Your task to perform on an android device: toggle pop-ups in chrome Image 0: 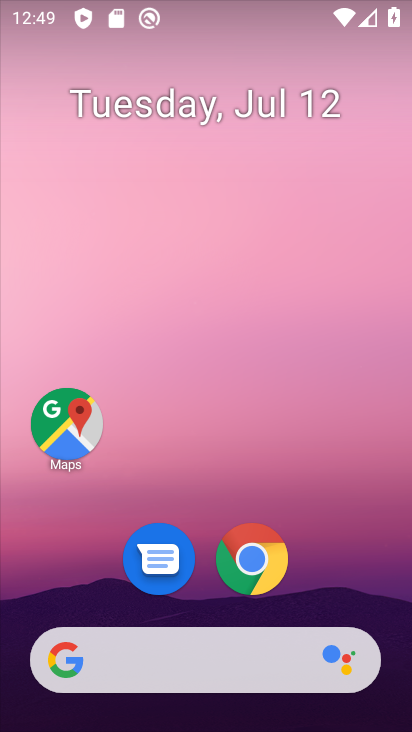
Step 0: drag from (356, 572) to (358, 112)
Your task to perform on an android device: toggle pop-ups in chrome Image 1: 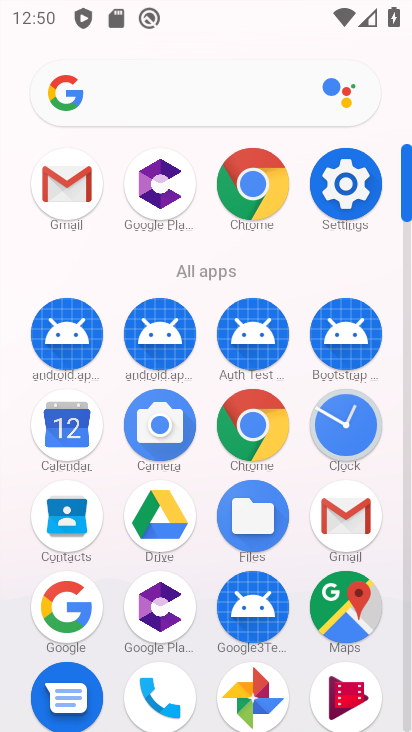
Step 1: click (250, 432)
Your task to perform on an android device: toggle pop-ups in chrome Image 2: 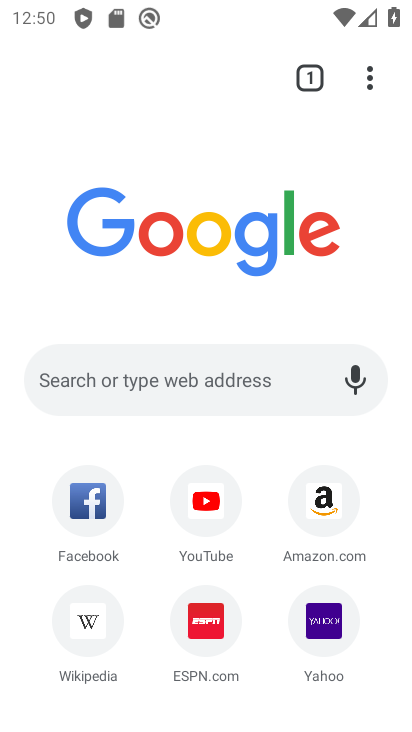
Step 2: click (372, 81)
Your task to perform on an android device: toggle pop-ups in chrome Image 3: 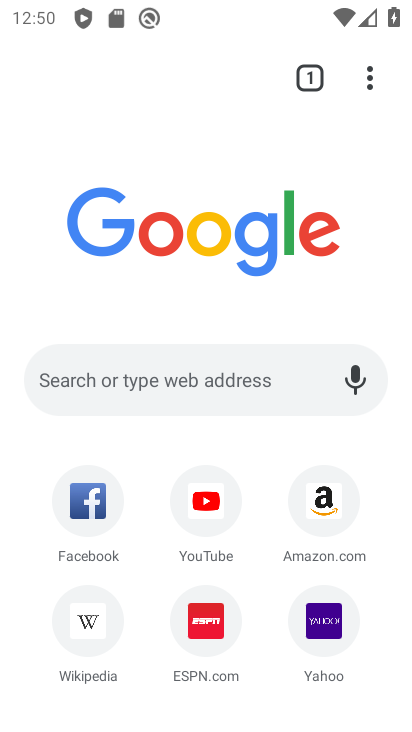
Step 3: click (368, 93)
Your task to perform on an android device: toggle pop-ups in chrome Image 4: 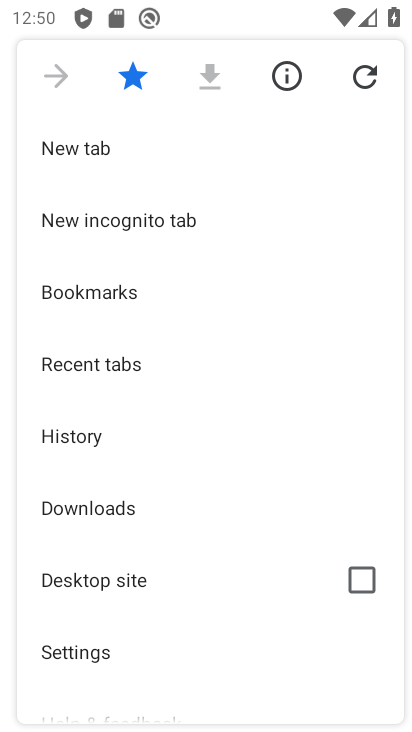
Step 4: drag from (257, 497) to (259, 339)
Your task to perform on an android device: toggle pop-ups in chrome Image 5: 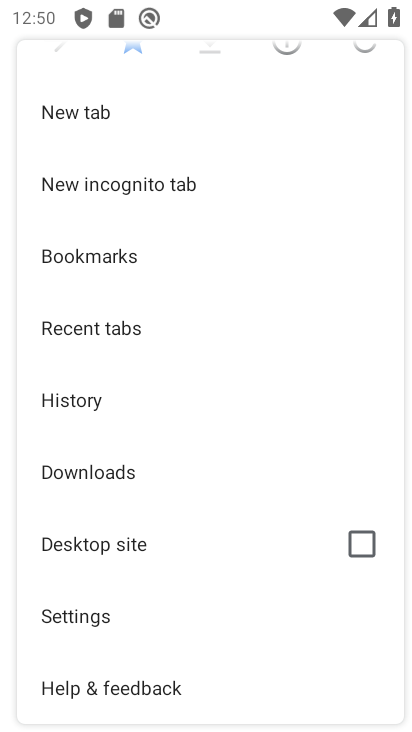
Step 5: drag from (236, 517) to (243, 357)
Your task to perform on an android device: toggle pop-ups in chrome Image 6: 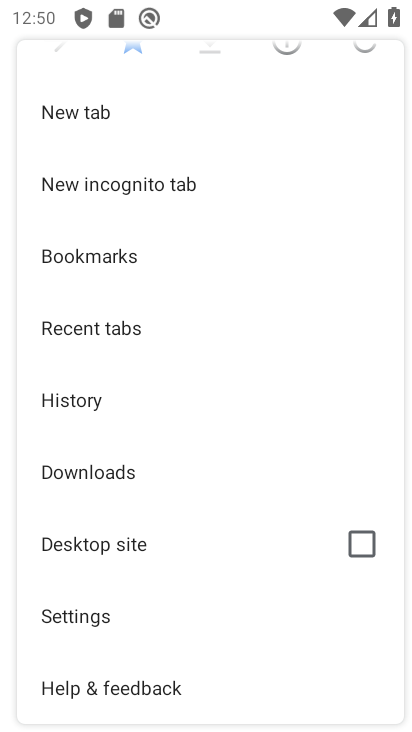
Step 6: click (93, 624)
Your task to perform on an android device: toggle pop-ups in chrome Image 7: 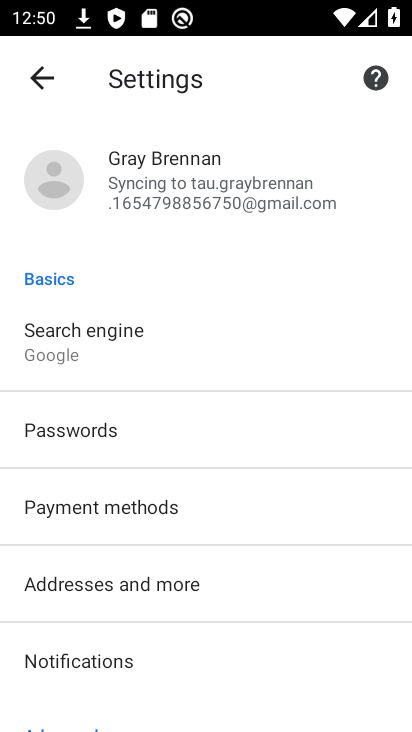
Step 7: drag from (306, 614) to (316, 430)
Your task to perform on an android device: toggle pop-ups in chrome Image 8: 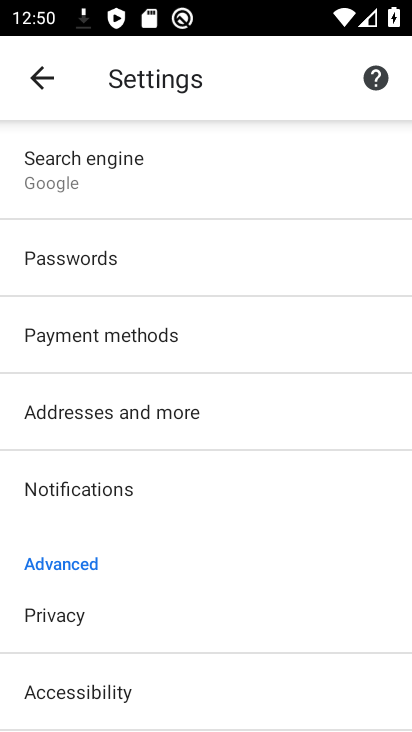
Step 8: drag from (324, 609) to (309, 311)
Your task to perform on an android device: toggle pop-ups in chrome Image 9: 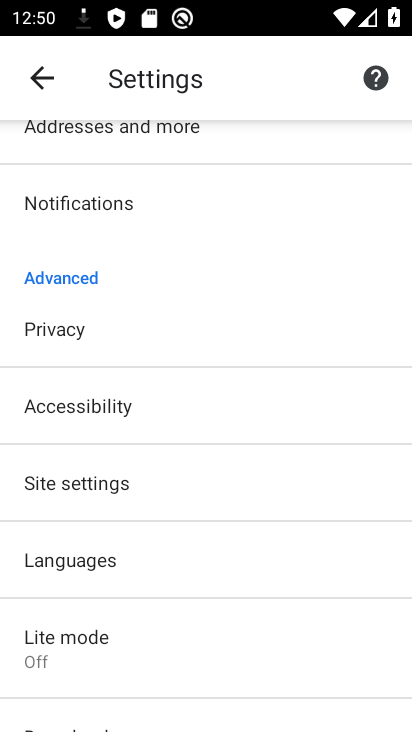
Step 9: drag from (280, 656) to (281, 471)
Your task to perform on an android device: toggle pop-ups in chrome Image 10: 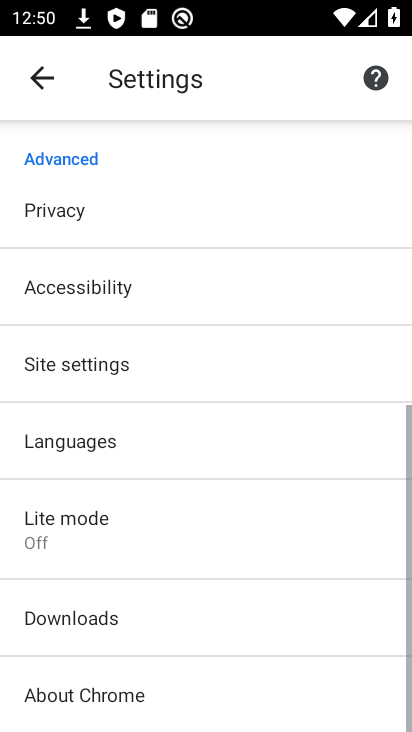
Step 10: drag from (273, 678) to (274, 473)
Your task to perform on an android device: toggle pop-ups in chrome Image 11: 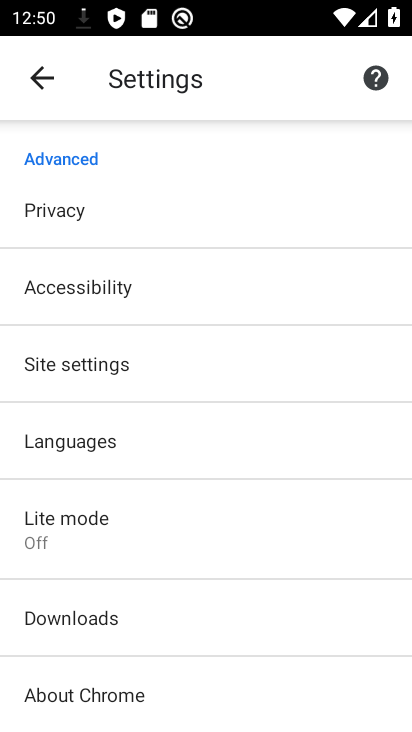
Step 11: drag from (268, 293) to (274, 392)
Your task to perform on an android device: toggle pop-ups in chrome Image 12: 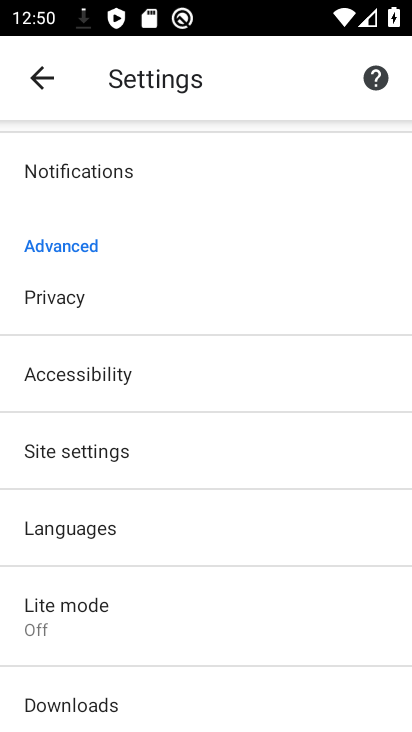
Step 12: click (156, 462)
Your task to perform on an android device: toggle pop-ups in chrome Image 13: 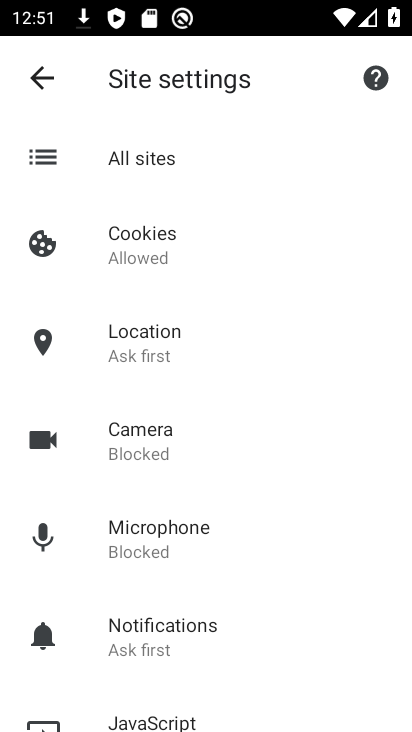
Step 13: drag from (308, 587) to (296, 343)
Your task to perform on an android device: toggle pop-ups in chrome Image 14: 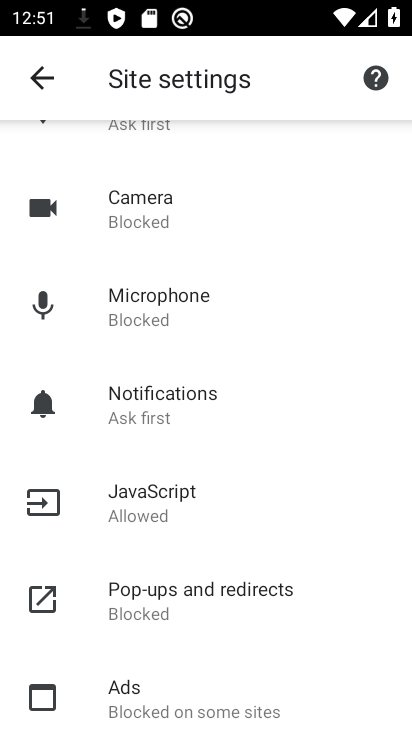
Step 14: drag from (331, 631) to (317, 383)
Your task to perform on an android device: toggle pop-ups in chrome Image 15: 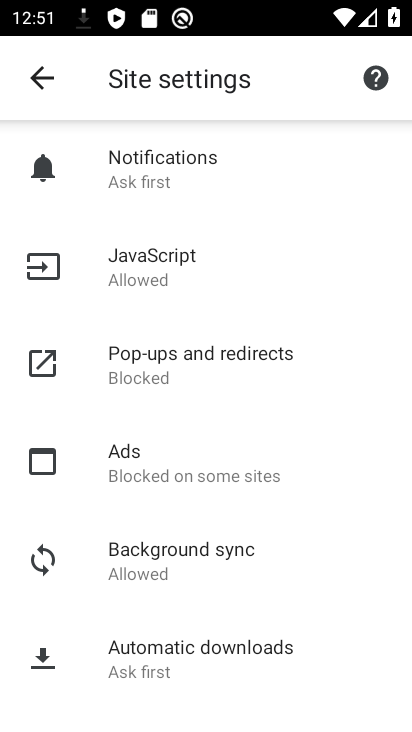
Step 15: drag from (331, 577) to (326, 280)
Your task to perform on an android device: toggle pop-ups in chrome Image 16: 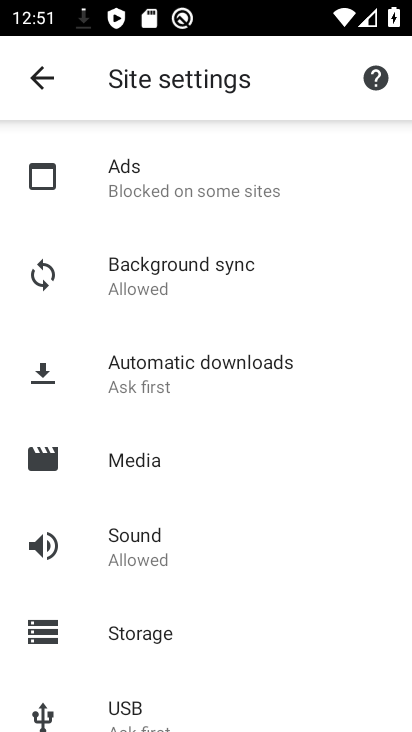
Step 16: drag from (307, 517) to (311, 329)
Your task to perform on an android device: toggle pop-ups in chrome Image 17: 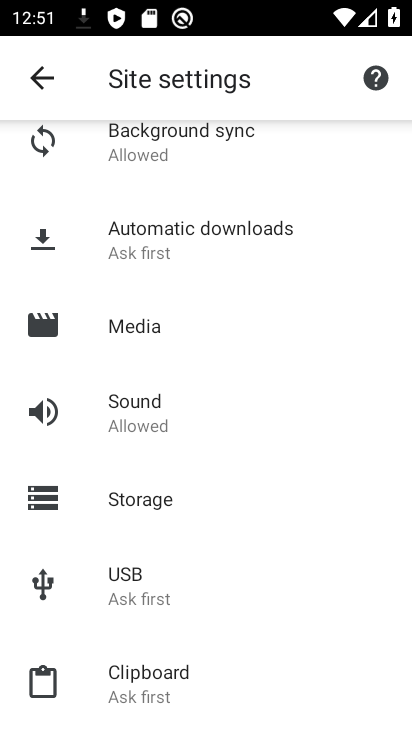
Step 17: drag from (296, 609) to (281, 379)
Your task to perform on an android device: toggle pop-ups in chrome Image 18: 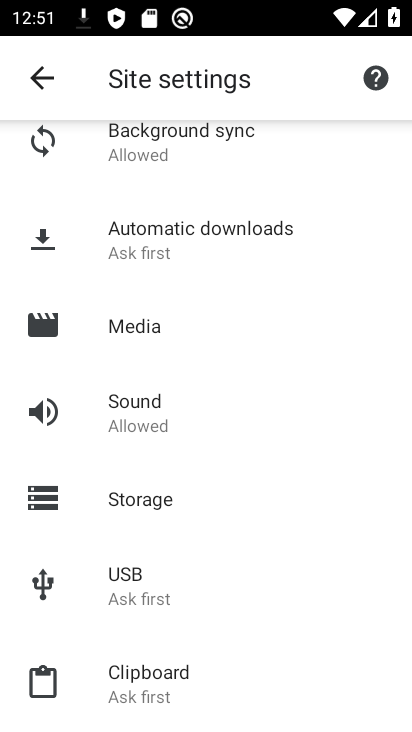
Step 18: drag from (304, 316) to (297, 487)
Your task to perform on an android device: toggle pop-ups in chrome Image 19: 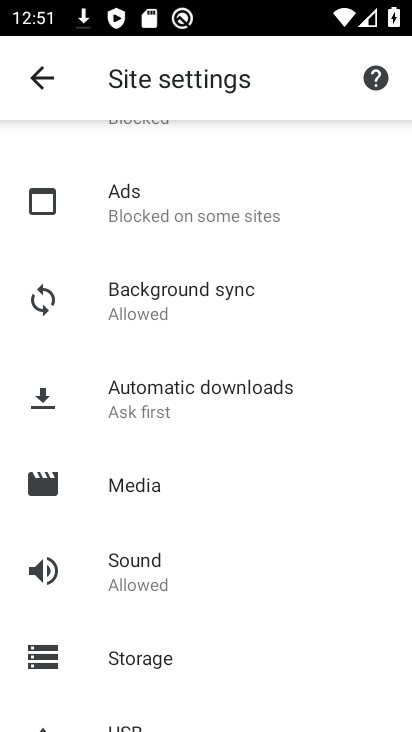
Step 19: drag from (297, 319) to (293, 500)
Your task to perform on an android device: toggle pop-ups in chrome Image 20: 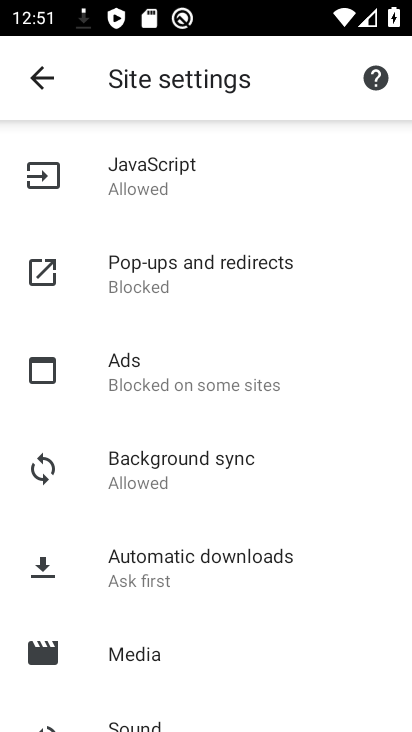
Step 20: click (205, 290)
Your task to perform on an android device: toggle pop-ups in chrome Image 21: 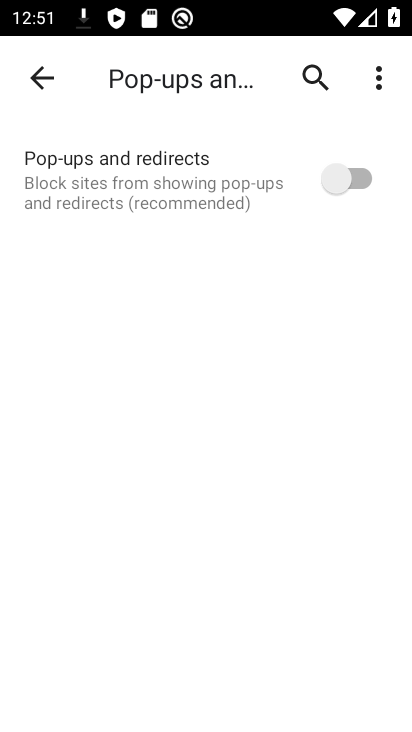
Step 21: click (348, 172)
Your task to perform on an android device: toggle pop-ups in chrome Image 22: 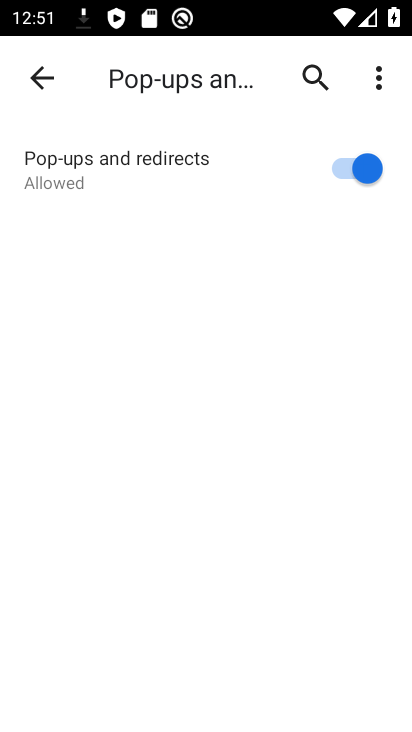
Step 22: task complete